Your task to perform on an android device: clear all cookies in the chrome app Image 0: 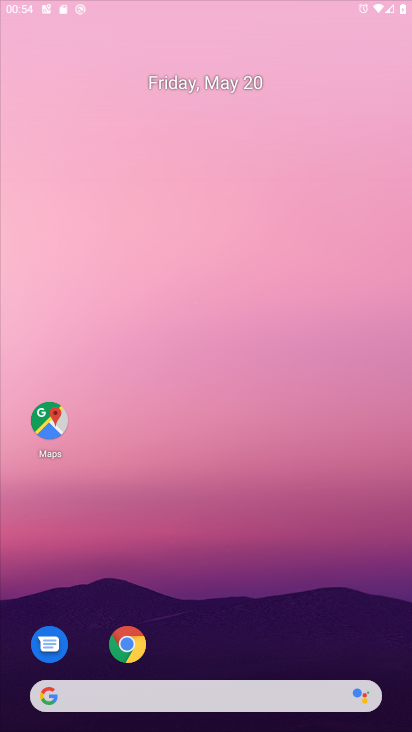
Step 0: click (234, 415)
Your task to perform on an android device: clear all cookies in the chrome app Image 1: 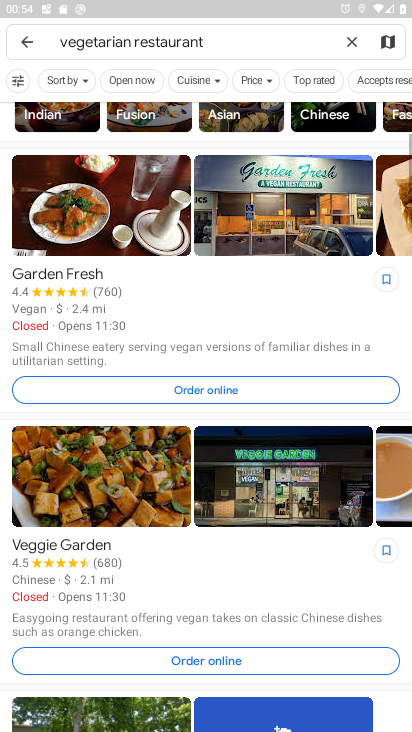
Step 1: press home button
Your task to perform on an android device: clear all cookies in the chrome app Image 2: 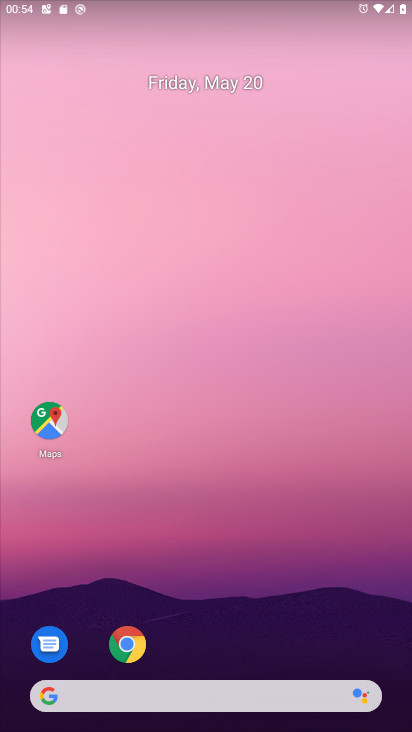
Step 2: click (127, 642)
Your task to perform on an android device: clear all cookies in the chrome app Image 3: 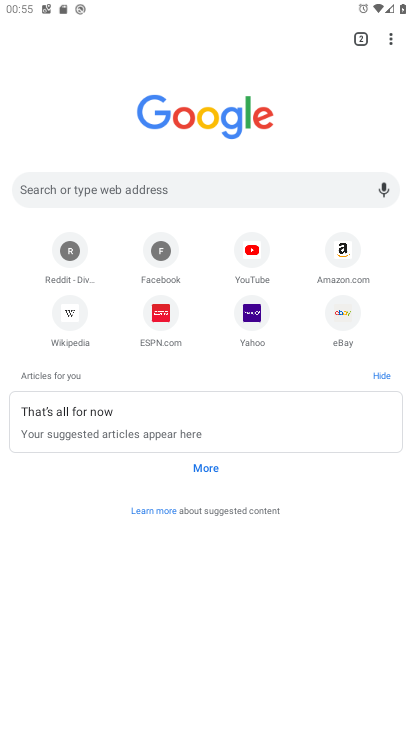
Step 3: click (394, 39)
Your task to perform on an android device: clear all cookies in the chrome app Image 4: 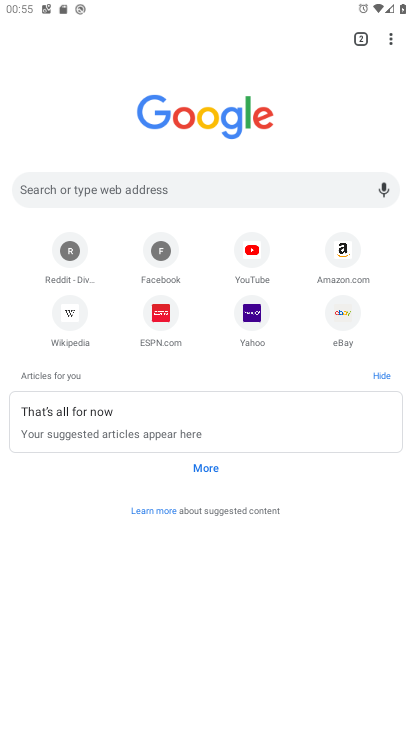
Step 4: click (389, 38)
Your task to perform on an android device: clear all cookies in the chrome app Image 5: 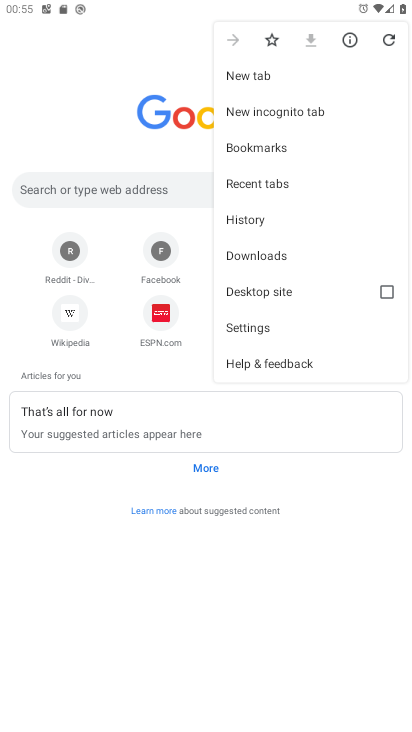
Step 5: click (260, 324)
Your task to perform on an android device: clear all cookies in the chrome app Image 6: 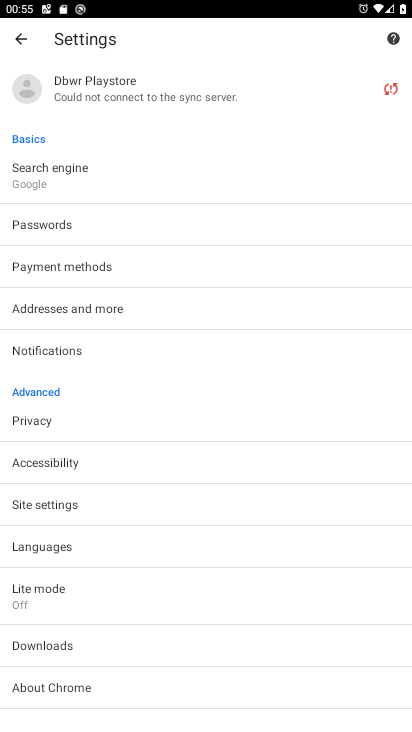
Step 6: click (40, 422)
Your task to perform on an android device: clear all cookies in the chrome app Image 7: 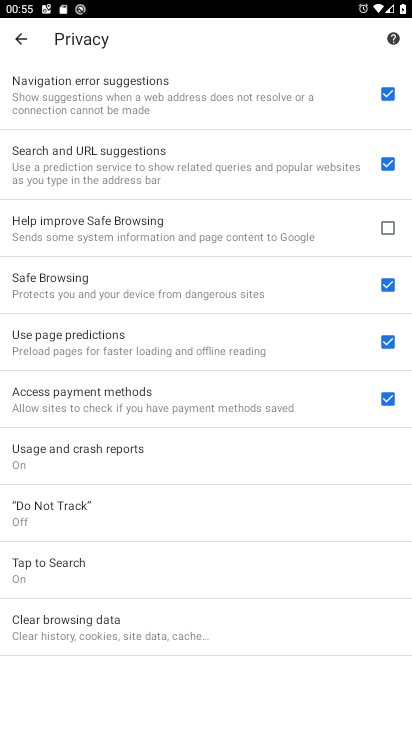
Step 7: click (87, 633)
Your task to perform on an android device: clear all cookies in the chrome app Image 8: 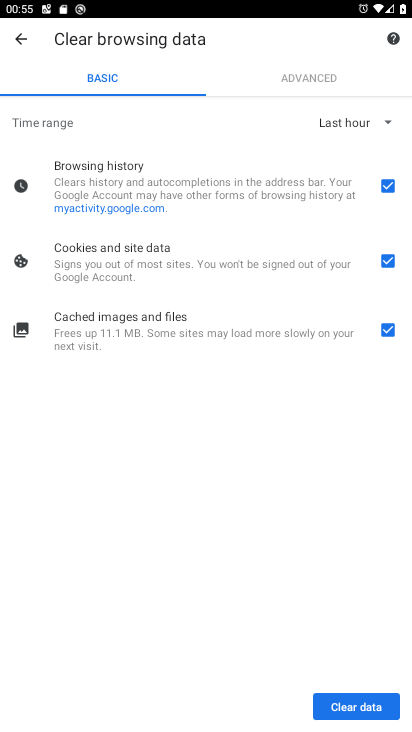
Step 8: click (381, 179)
Your task to perform on an android device: clear all cookies in the chrome app Image 9: 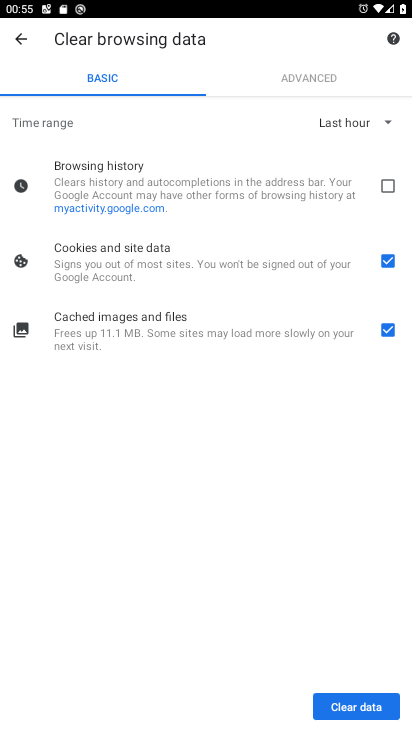
Step 9: click (389, 328)
Your task to perform on an android device: clear all cookies in the chrome app Image 10: 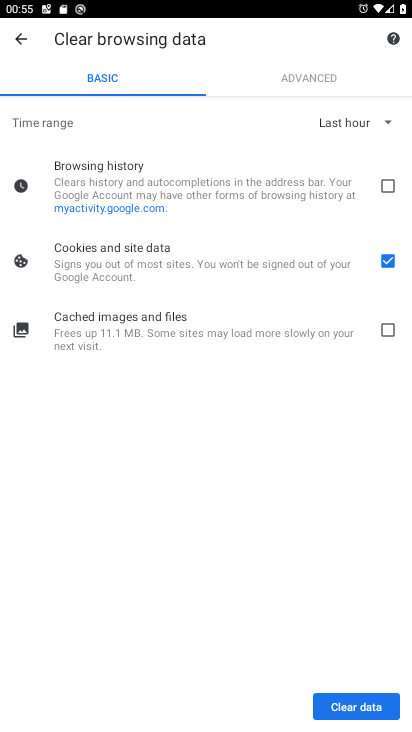
Step 10: click (357, 705)
Your task to perform on an android device: clear all cookies in the chrome app Image 11: 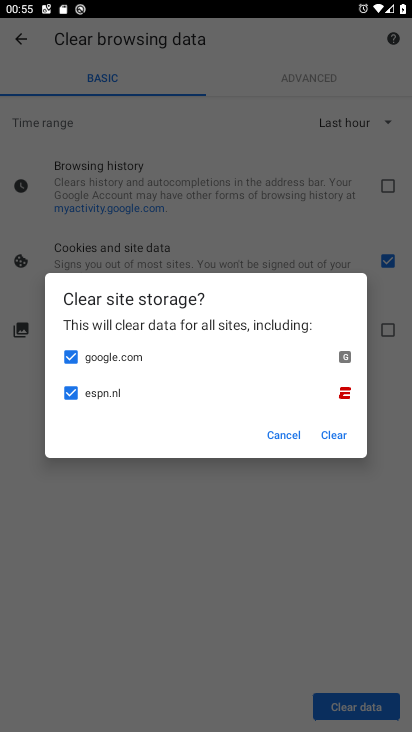
Step 11: click (336, 443)
Your task to perform on an android device: clear all cookies in the chrome app Image 12: 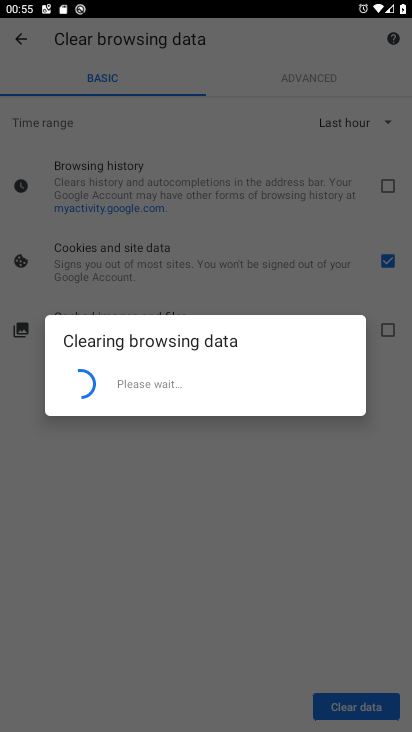
Step 12: task complete